Your task to perform on an android device: change the clock style Image 0: 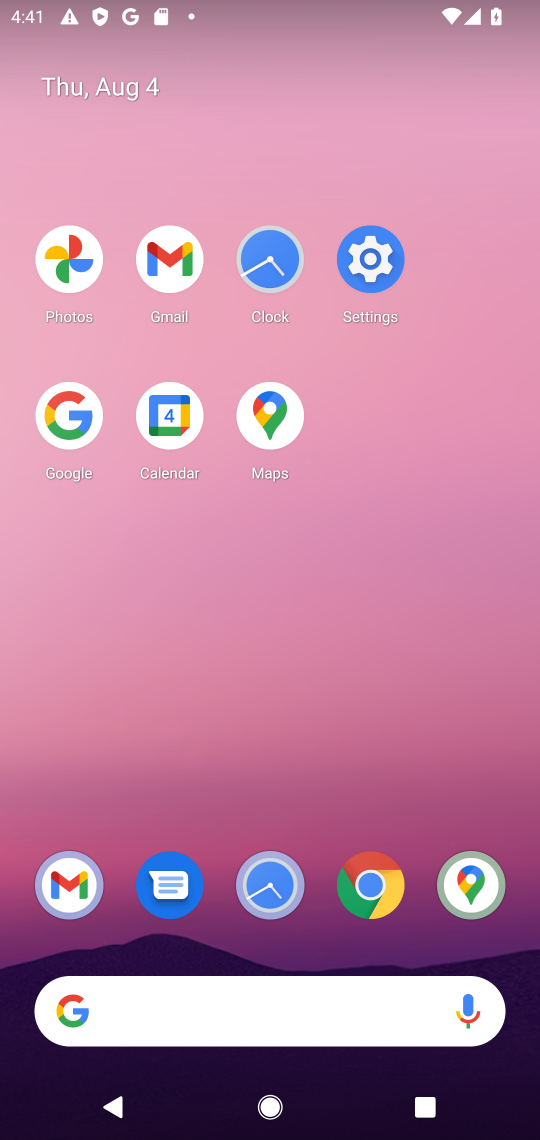
Step 0: click (279, 267)
Your task to perform on an android device: change the clock style Image 1: 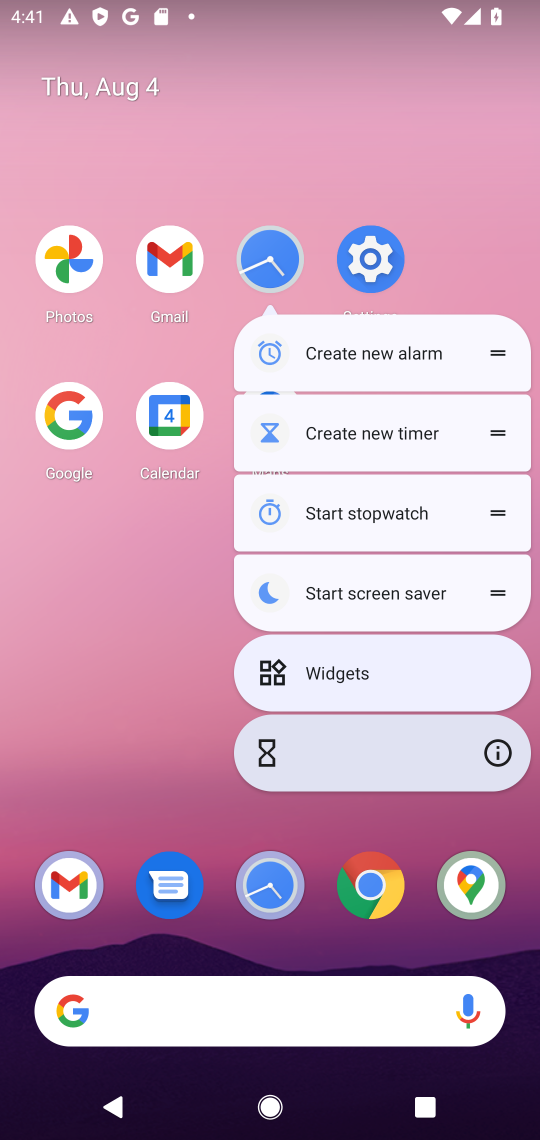
Step 1: click (284, 254)
Your task to perform on an android device: change the clock style Image 2: 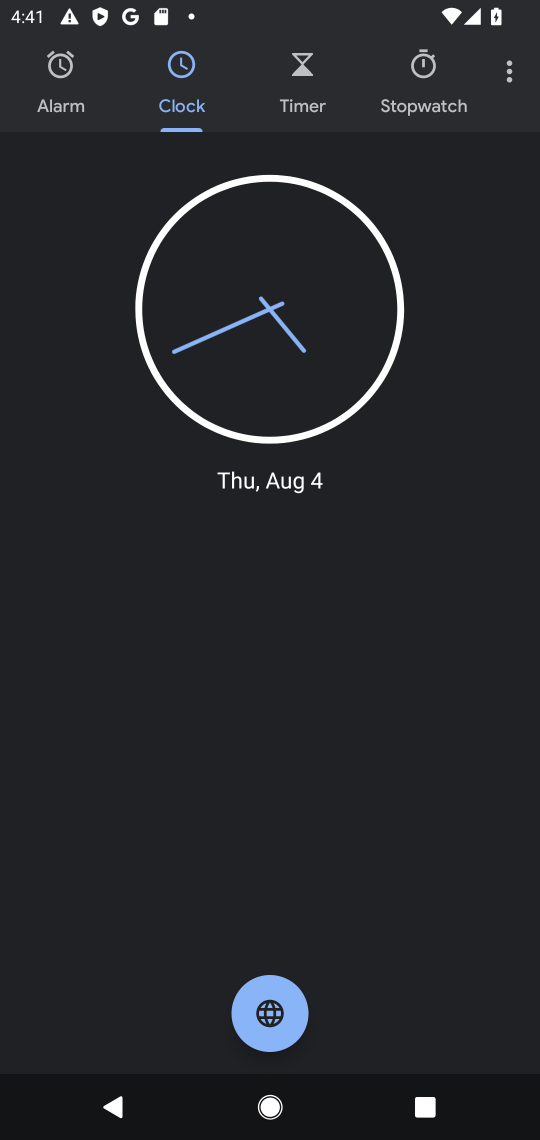
Step 2: click (509, 75)
Your task to perform on an android device: change the clock style Image 3: 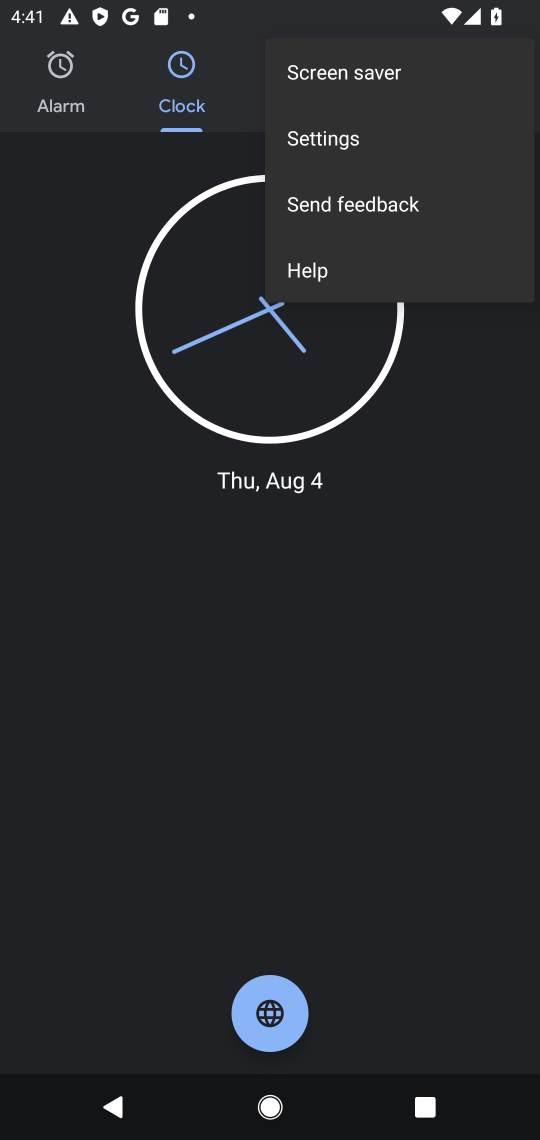
Step 3: click (403, 142)
Your task to perform on an android device: change the clock style Image 4: 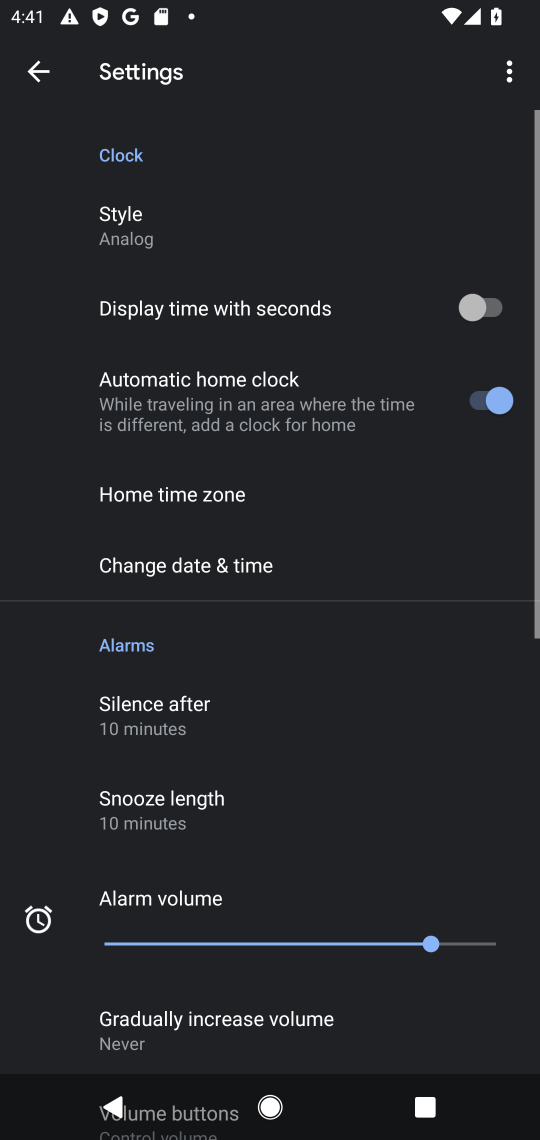
Step 4: click (220, 209)
Your task to perform on an android device: change the clock style Image 5: 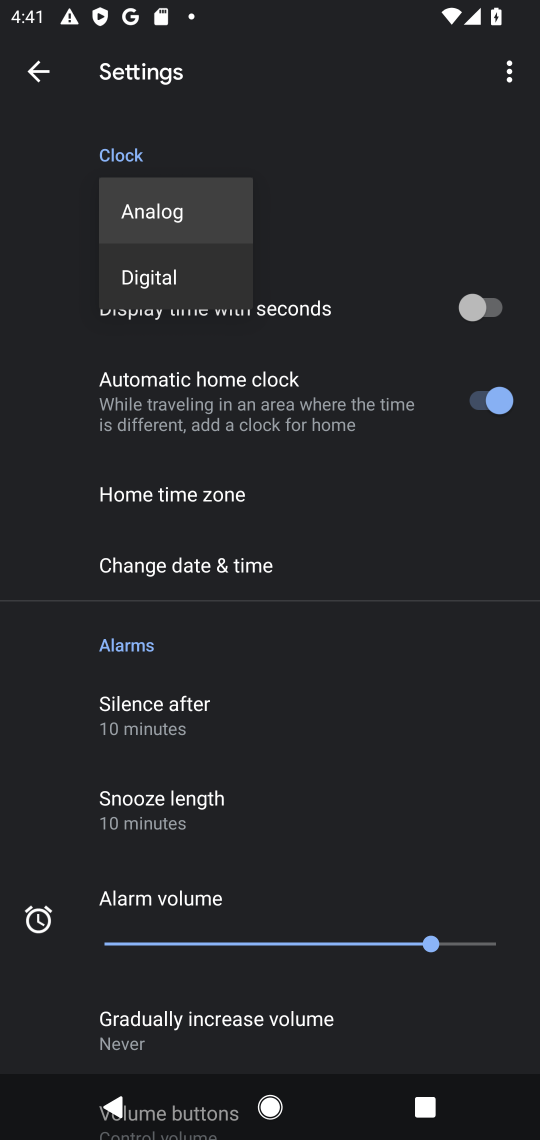
Step 5: click (177, 268)
Your task to perform on an android device: change the clock style Image 6: 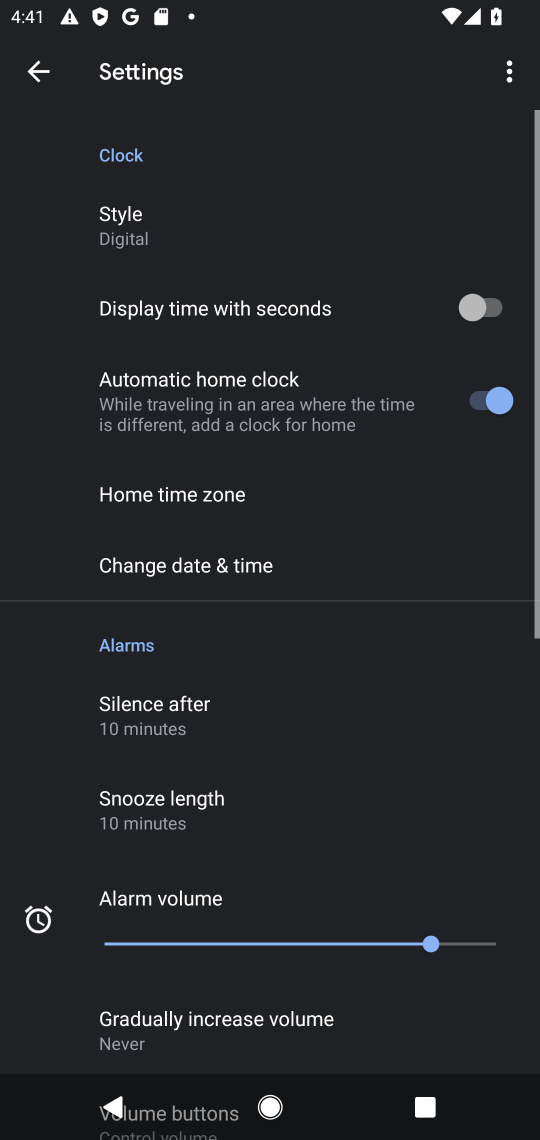
Step 6: task complete